Your task to perform on an android device: Open the calendar and show me this week's events Image 0: 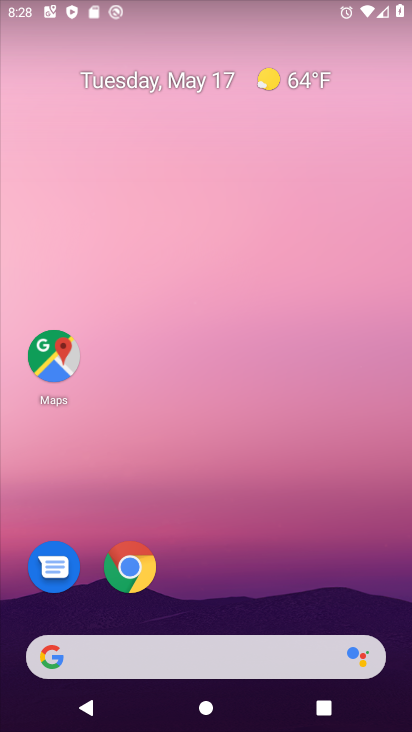
Step 0: drag from (399, 632) to (276, 137)
Your task to perform on an android device: Open the calendar and show me this week's events Image 1: 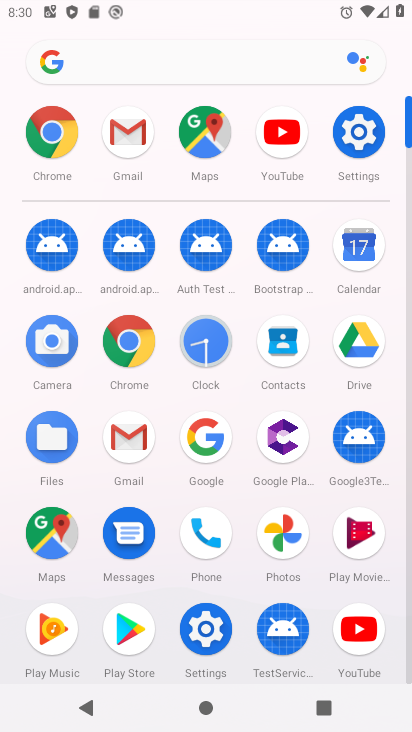
Step 1: click (352, 249)
Your task to perform on an android device: Open the calendar and show me this week's events Image 2: 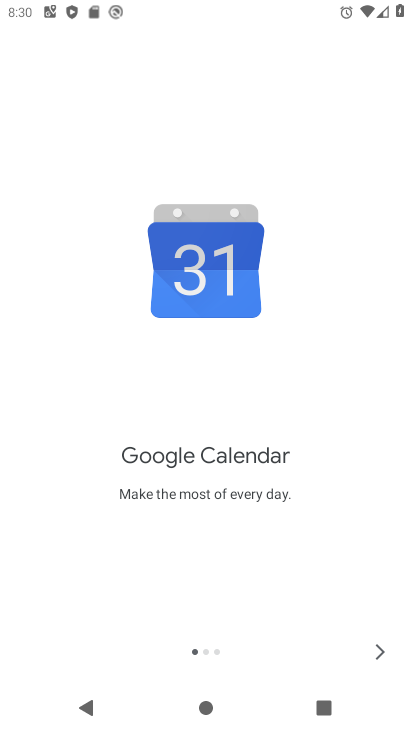
Step 2: click (372, 652)
Your task to perform on an android device: Open the calendar and show me this week's events Image 3: 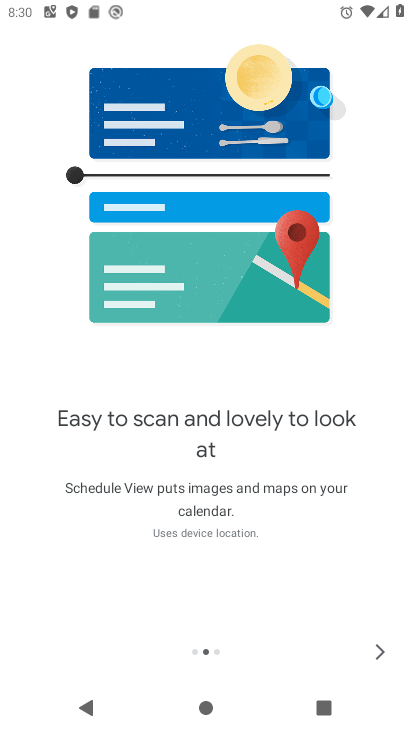
Step 3: click (381, 648)
Your task to perform on an android device: Open the calendar and show me this week's events Image 4: 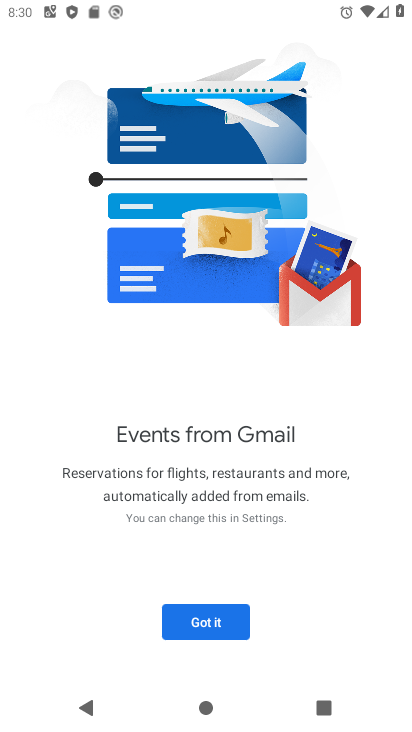
Step 4: click (203, 624)
Your task to perform on an android device: Open the calendar and show me this week's events Image 5: 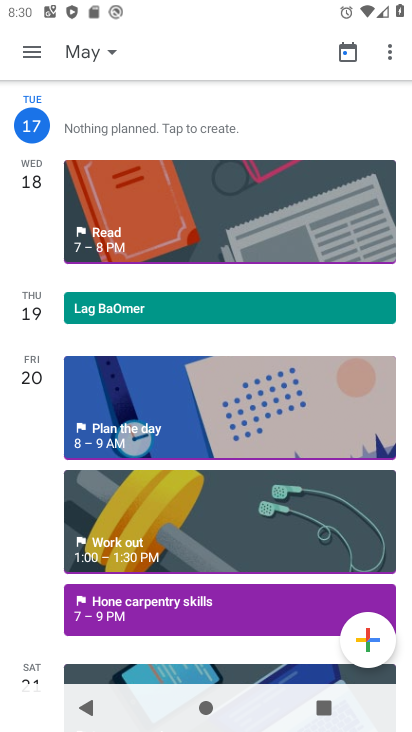
Step 5: click (34, 65)
Your task to perform on an android device: Open the calendar and show me this week's events Image 6: 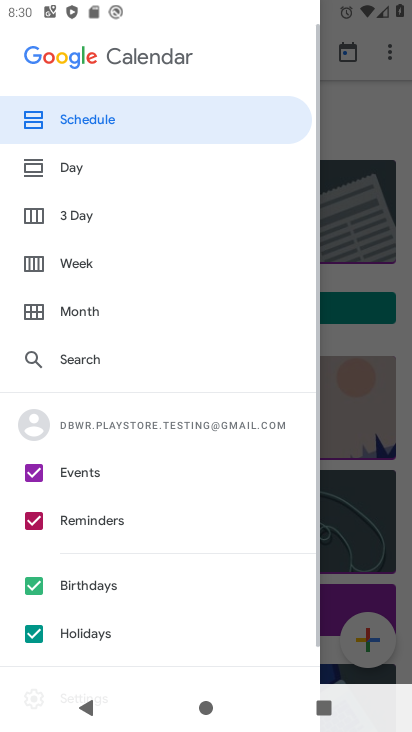
Step 6: task complete